Your task to perform on an android device: make emails show in primary in the gmail app Image 0: 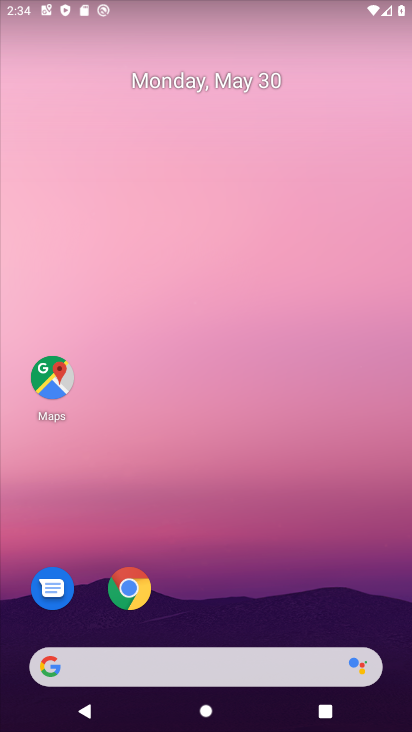
Step 0: drag from (236, 596) to (266, 183)
Your task to perform on an android device: make emails show in primary in the gmail app Image 1: 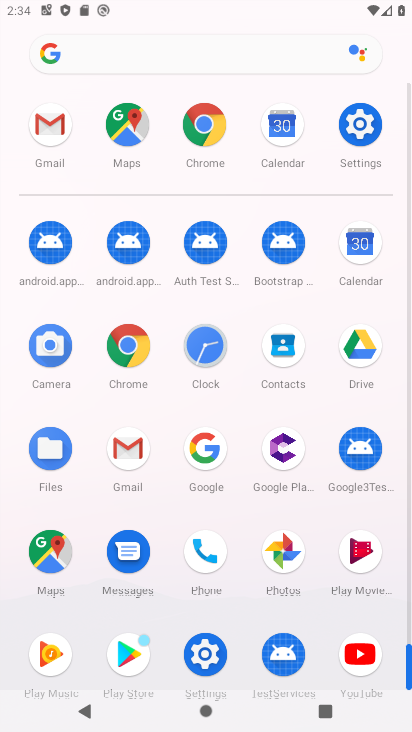
Step 1: click (126, 440)
Your task to perform on an android device: make emails show in primary in the gmail app Image 2: 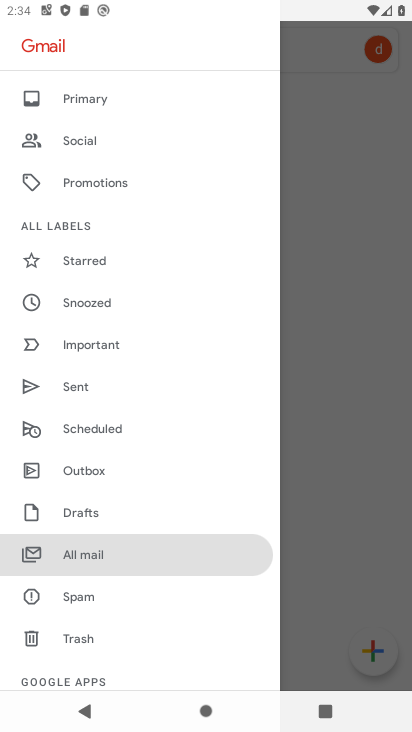
Step 2: drag from (121, 580) to (154, 243)
Your task to perform on an android device: make emails show in primary in the gmail app Image 3: 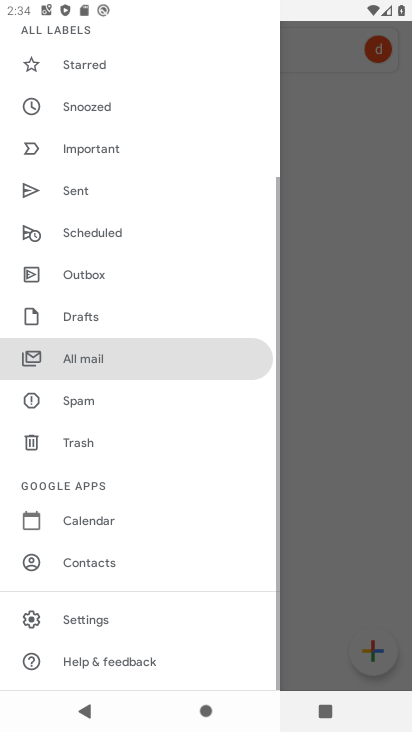
Step 3: click (93, 627)
Your task to perform on an android device: make emails show in primary in the gmail app Image 4: 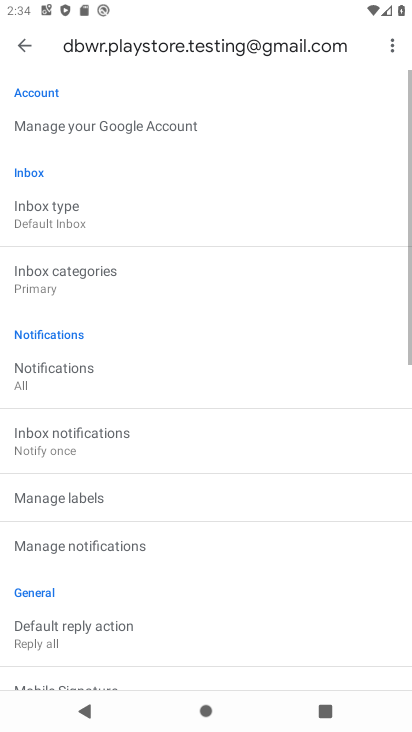
Step 4: task complete